Your task to perform on an android device: Open Google Maps Image 0: 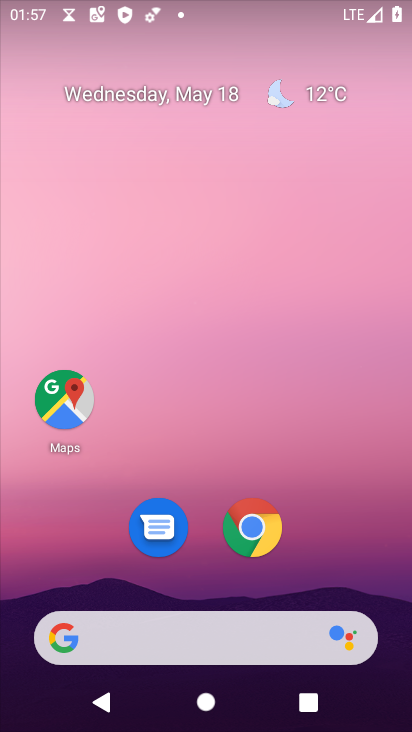
Step 0: click (73, 401)
Your task to perform on an android device: Open Google Maps Image 1: 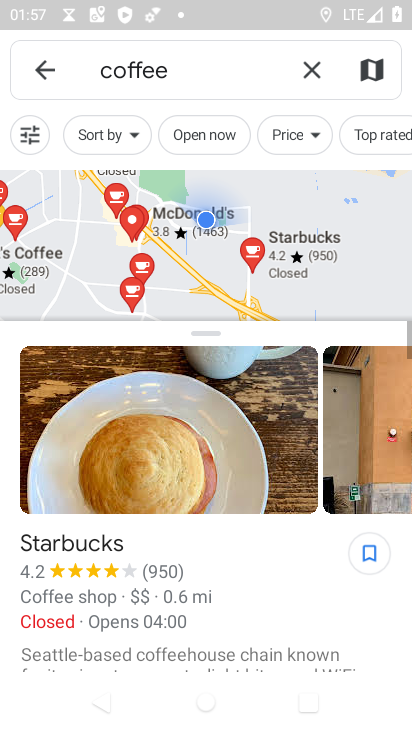
Step 1: task complete